Your task to perform on an android device: Set the phone to "Do not disturb". Image 0: 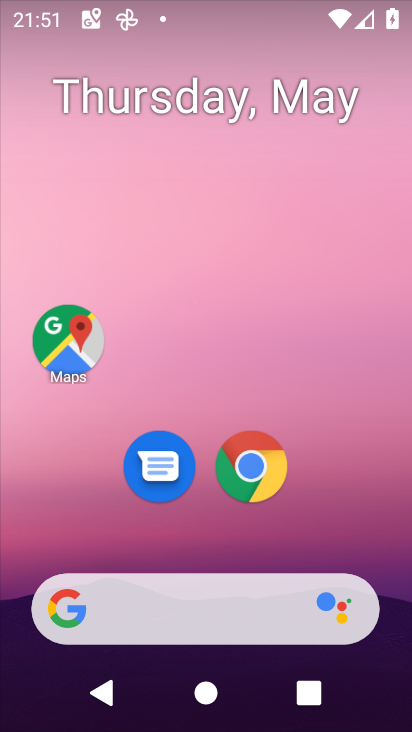
Step 0: drag from (334, 531) to (315, 77)
Your task to perform on an android device: Set the phone to "Do not disturb". Image 1: 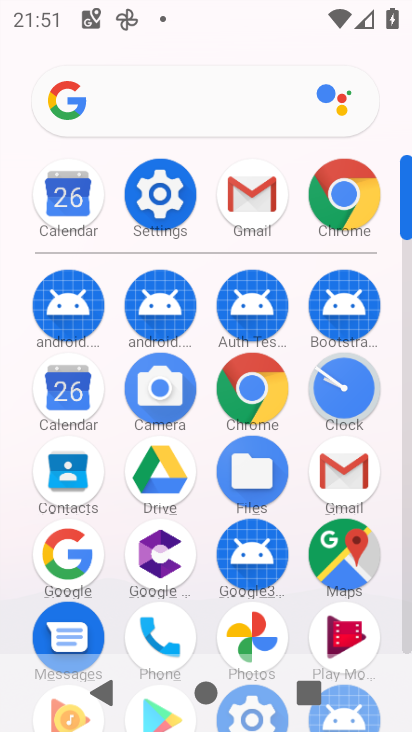
Step 1: click (161, 204)
Your task to perform on an android device: Set the phone to "Do not disturb". Image 2: 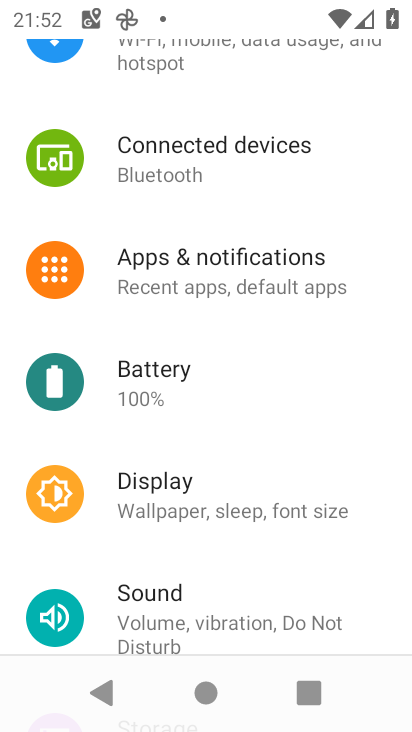
Step 2: drag from (178, 575) to (223, 251)
Your task to perform on an android device: Set the phone to "Do not disturb". Image 3: 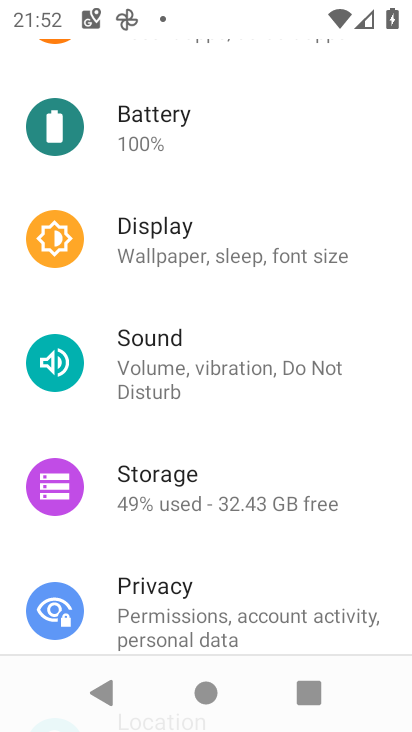
Step 3: click (213, 236)
Your task to perform on an android device: Set the phone to "Do not disturb". Image 4: 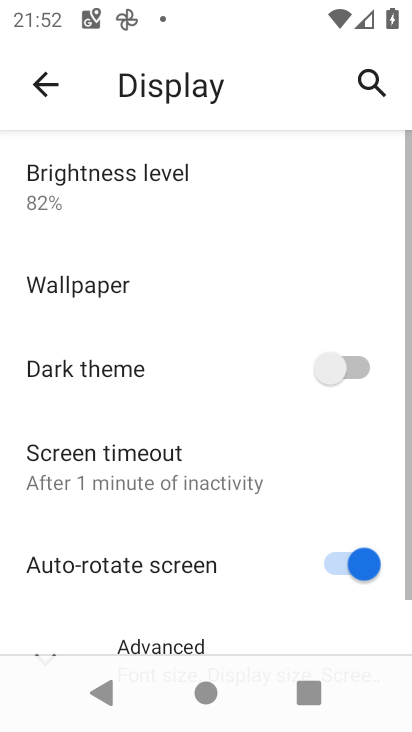
Step 4: drag from (200, 537) to (230, 312)
Your task to perform on an android device: Set the phone to "Do not disturb". Image 5: 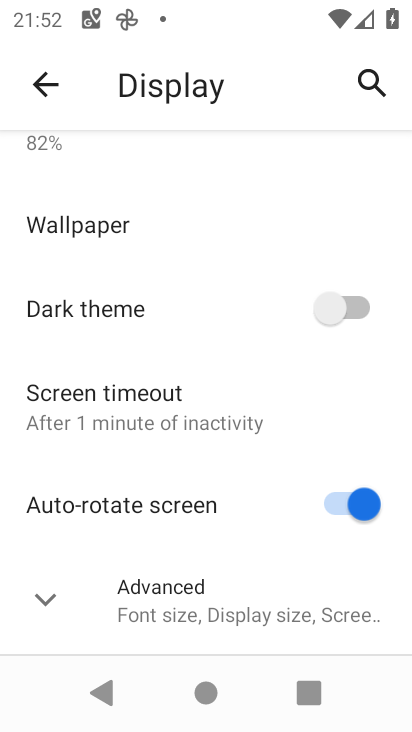
Step 5: click (161, 411)
Your task to perform on an android device: Set the phone to "Do not disturb". Image 6: 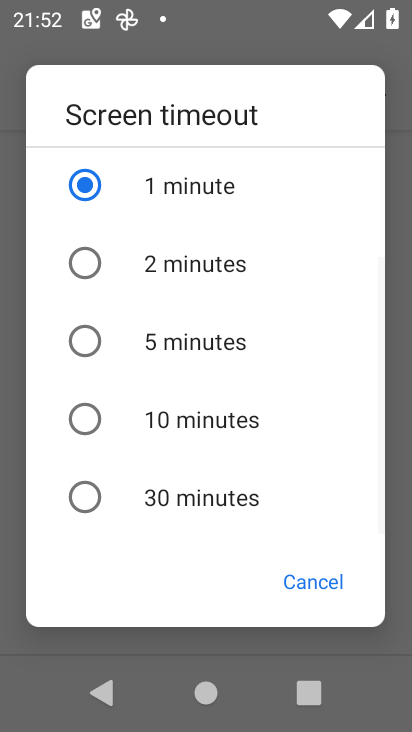
Step 6: task complete